Your task to perform on an android device: What's on my calendar today? Image 0: 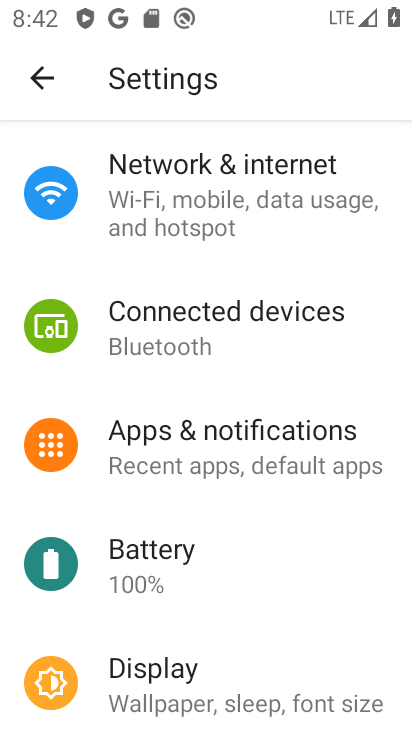
Step 0: press back button
Your task to perform on an android device: What's on my calendar today? Image 1: 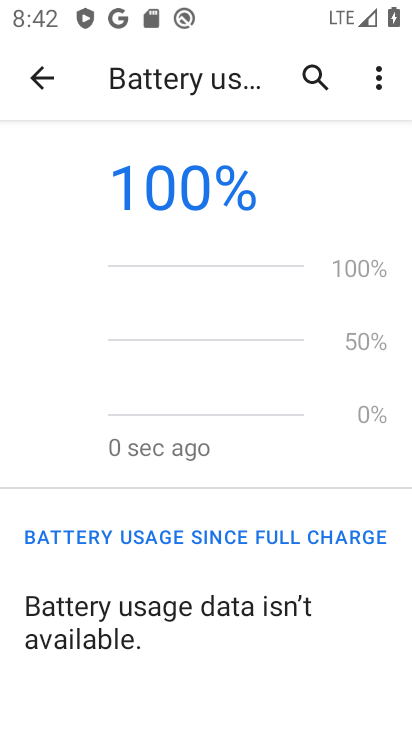
Step 1: press back button
Your task to perform on an android device: What's on my calendar today? Image 2: 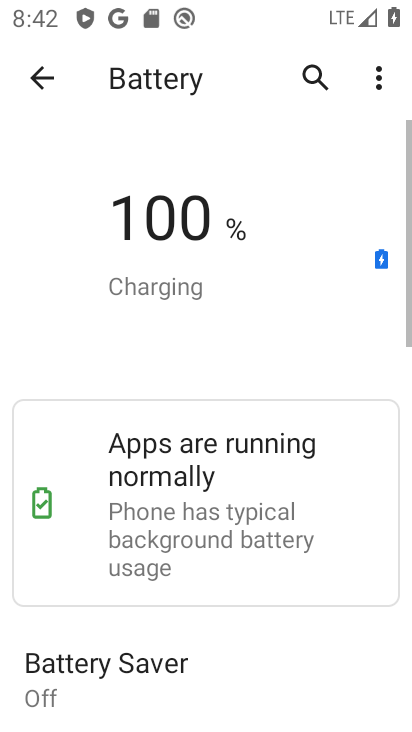
Step 2: press back button
Your task to perform on an android device: What's on my calendar today? Image 3: 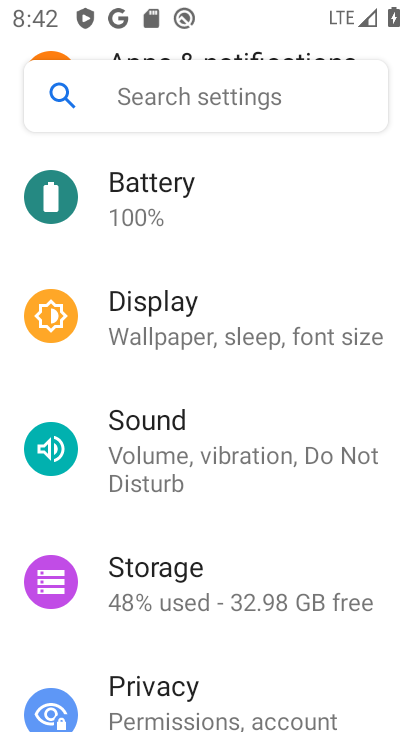
Step 3: drag from (165, 633) to (336, 60)
Your task to perform on an android device: What's on my calendar today? Image 4: 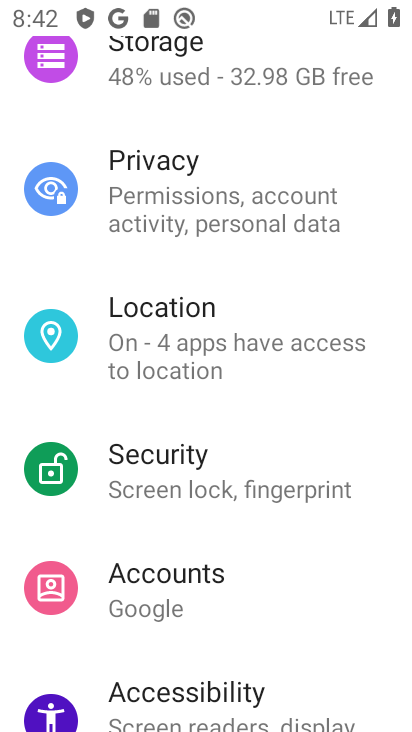
Step 4: press back button
Your task to perform on an android device: What's on my calendar today? Image 5: 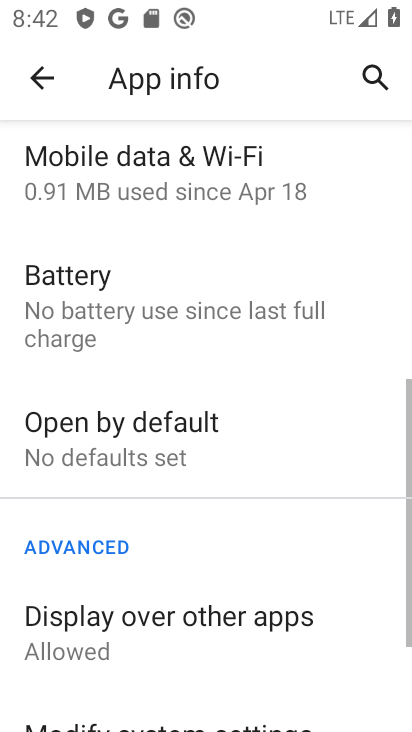
Step 5: press back button
Your task to perform on an android device: What's on my calendar today? Image 6: 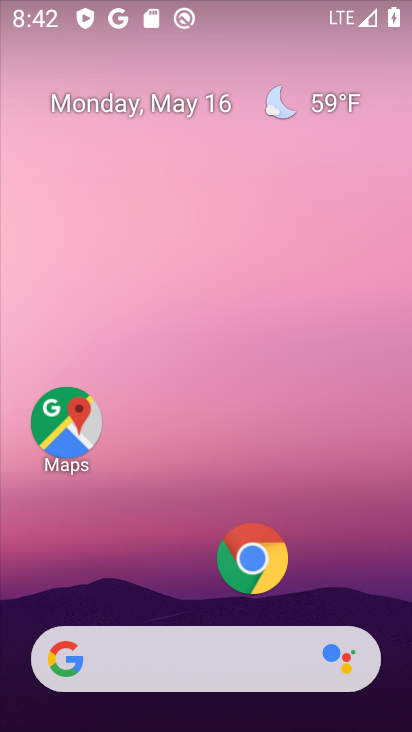
Step 6: drag from (139, 606) to (319, 15)
Your task to perform on an android device: What's on my calendar today? Image 7: 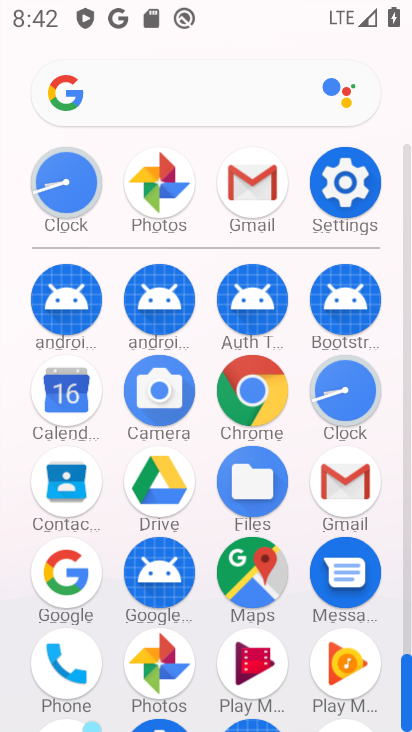
Step 7: click (61, 403)
Your task to perform on an android device: What's on my calendar today? Image 8: 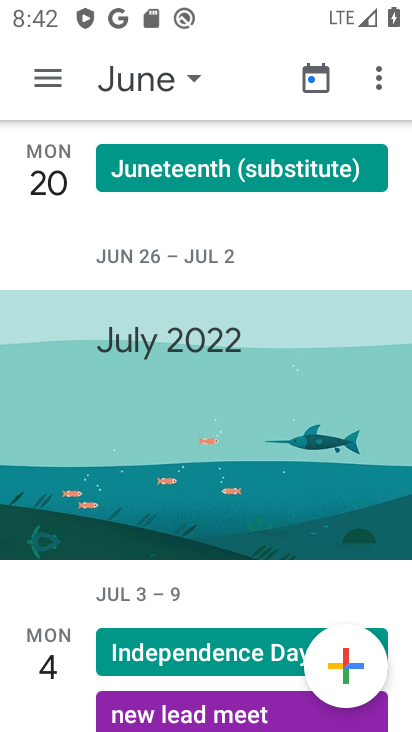
Step 8: drag from (252, 232) to (203, 719)
Your task to perform on an android device: What's on my calendar today? Image 9: 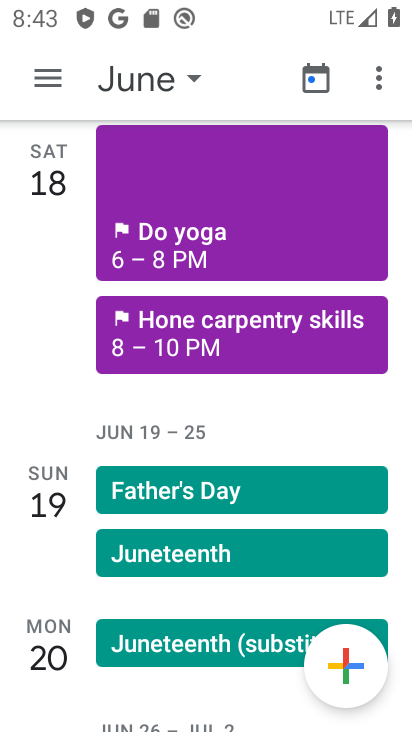
Step 9: click (151, 58)
Your task to perform on an android device: What's on my calendar today? Image 10: 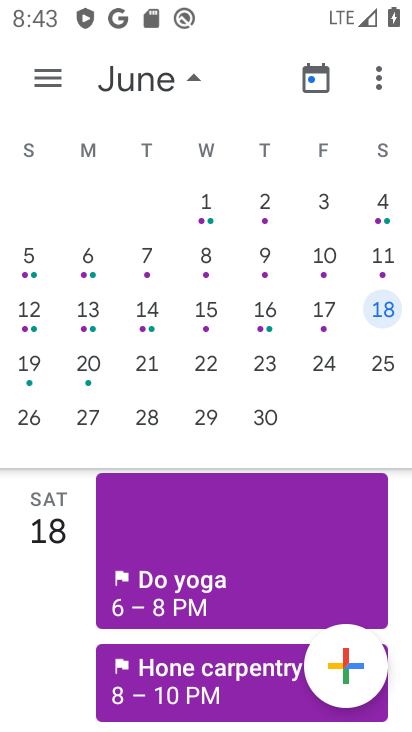
Step 10: drag from (27, 330) to (397, 329)
Your task to perform on an android device: What's on my calendar today? Image 11: 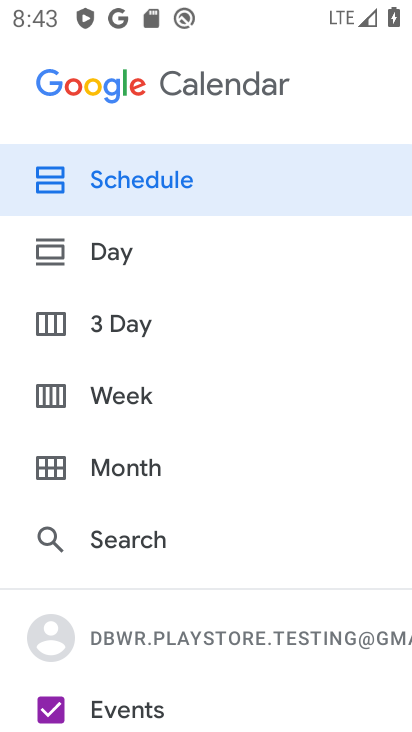
Step 11: drag from (384, 323) to (39, 324)
Your task to perform on an android device: What's on my calendar today? Image 12: 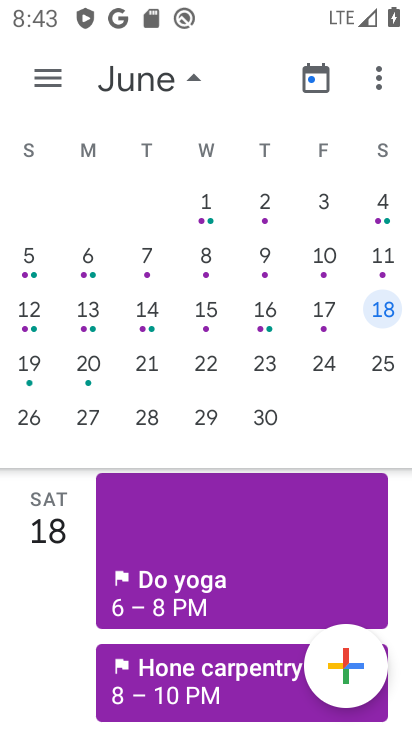
Step 12: drag from (75, 332) to (367, 337)
Your task to perform on an android device: What's on my calendar today? Image 13: 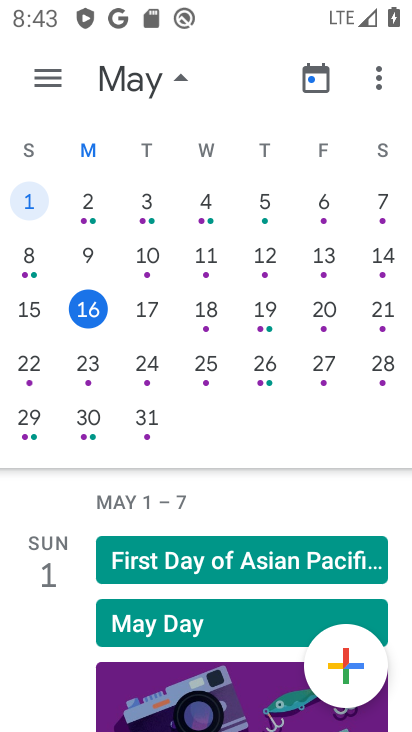
Step 13: click (143, 316)
Your task to perform on an android device: What's on my calendar today? Image 14: 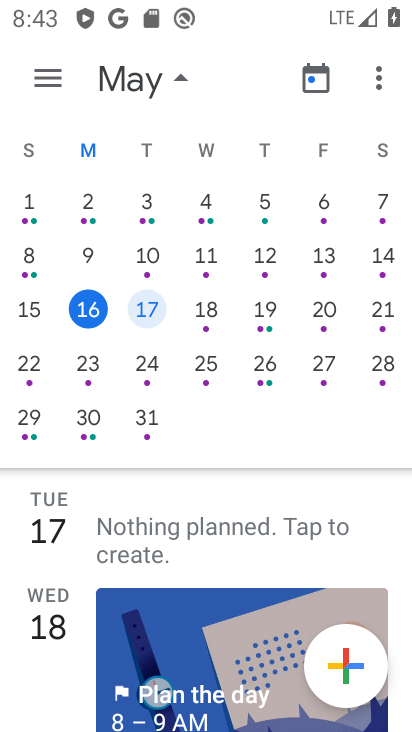
Step 14: click (79, 312)
Your task to perform on an android device: What's on my calendar today? Image 15: 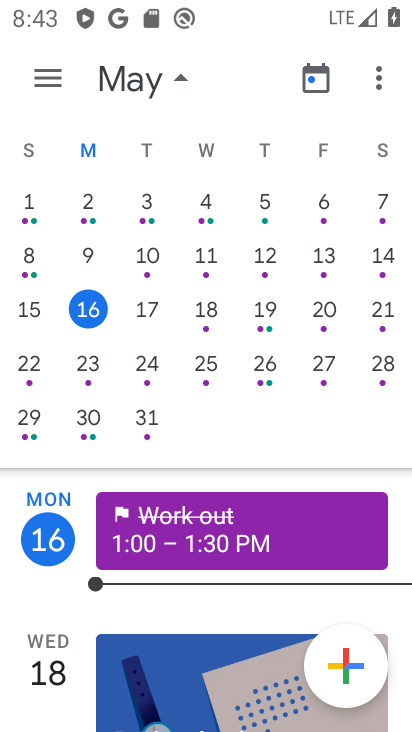
Step 15: drag from (183, 598) to (237, 398)
Your task to perform on an android device: What's on my calendar today? Image 16: 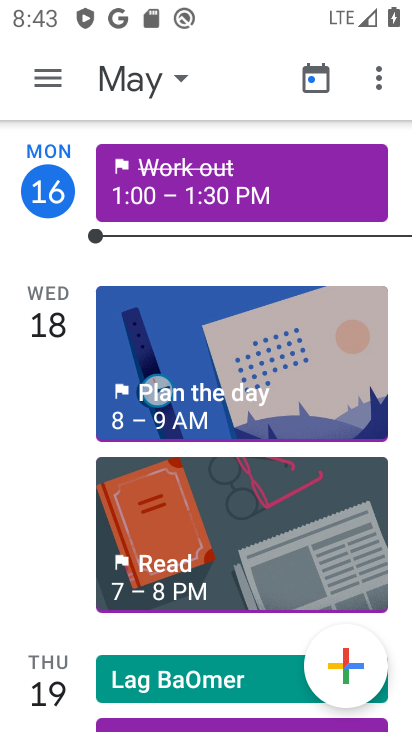
Step 16: click (225, 331)
Your task to perform on an android device: What's on my calendar today? Image 17: 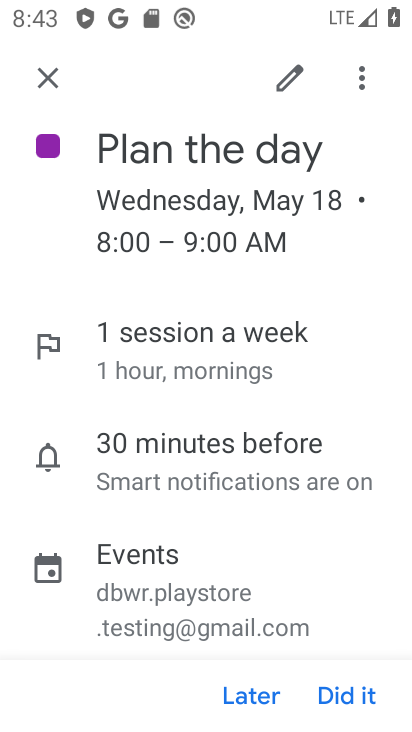
Step 17: drag from (210, 361) to (199, 453)
Your task to perform on an android device: What's on my calendar today? Image 18: 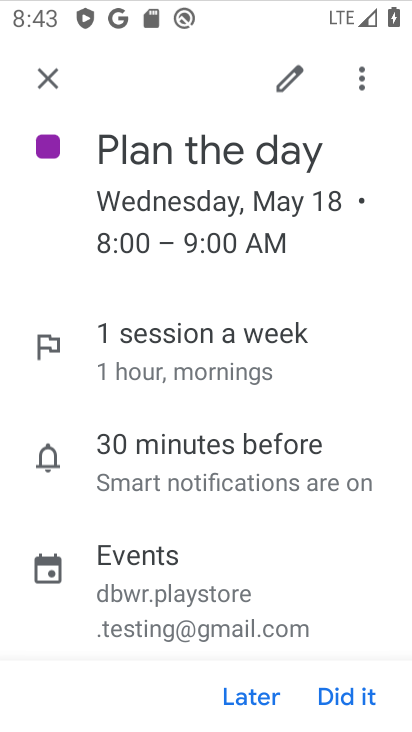
Step 18: click (51, 66)
Your task to perform on an android device: What's on my calendar today? Image 19: 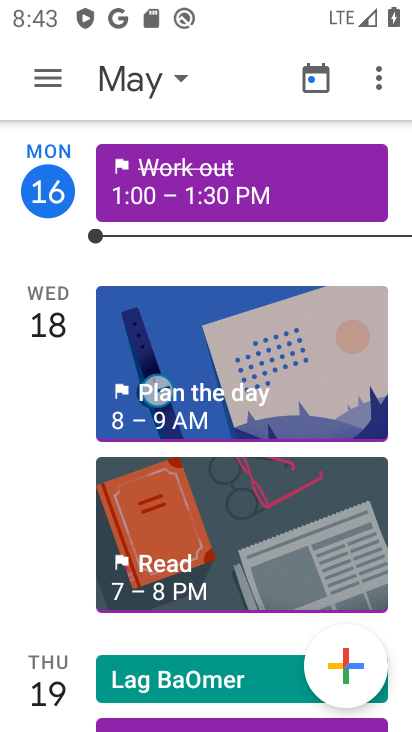
Step 19: drag from (216, 265) to (212, 540)
Your task to perform on an android device: What's on my calendar today? Image 20: 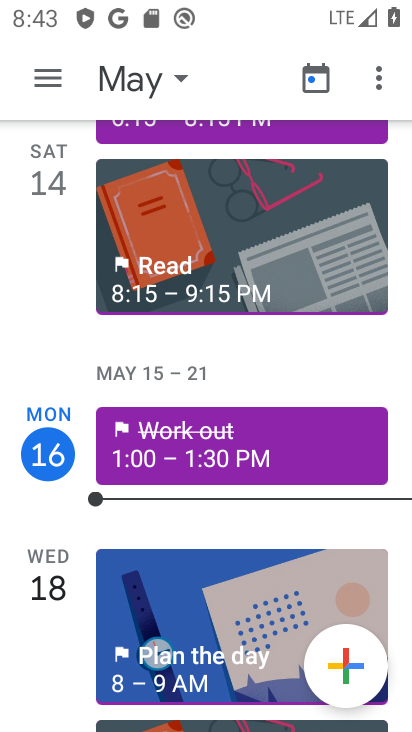
Step 20: click (171, 448)
Your task to perform on an android device: What's on my calendar today? Image 21: 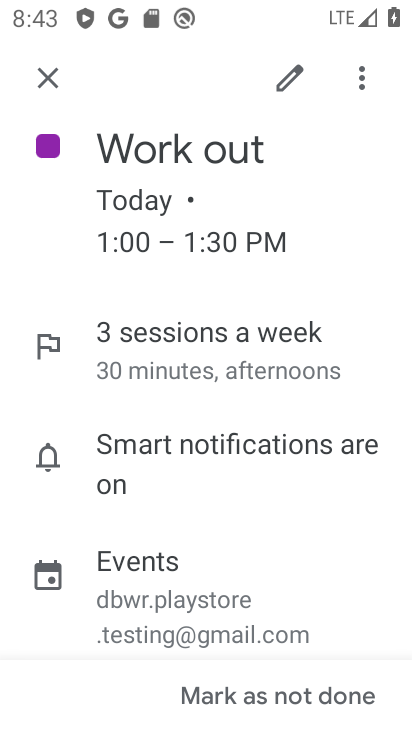
Step 21: task complete